Your task to perform on an android device: When is my next meeting? Image 0: 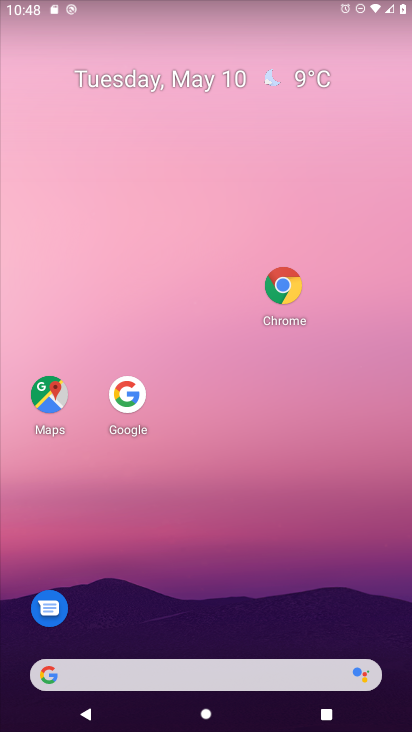
Step 0: drag from (198, 663) to (274, 172)
Your task to perform on an android device: When is my next meeting? Image 1: 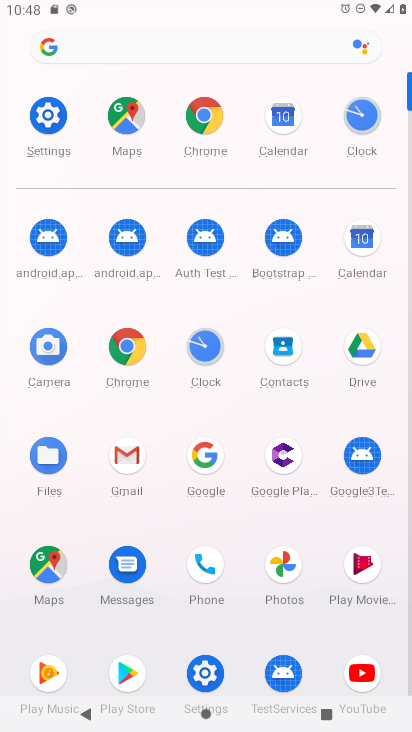
Step 1: click (283, 118)
Your task to perform on an android device: When is my next meeting? Image 2: 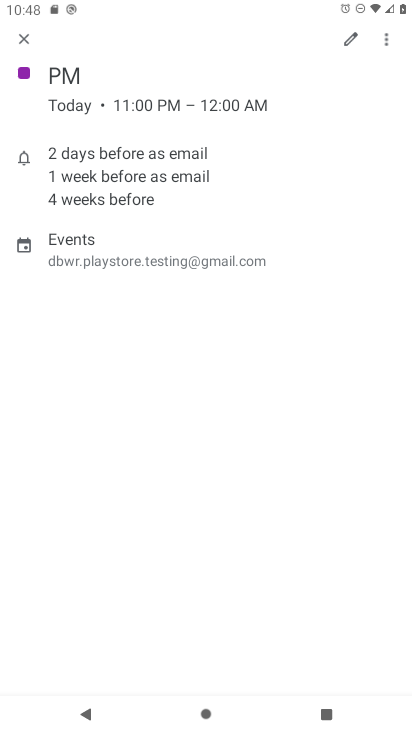
Step 2: click (22, 39)
Your task to perform on an android device: When is my next meeting? Image 3: 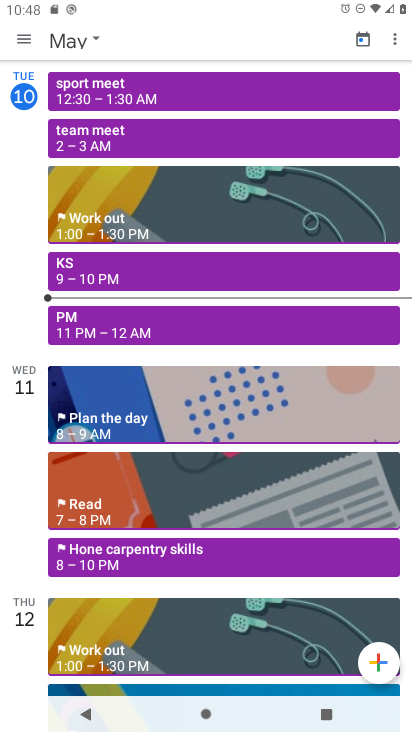
Step 3: click (122, 139)
Your task to perform on an android device: When is my next meeting? Image 4: 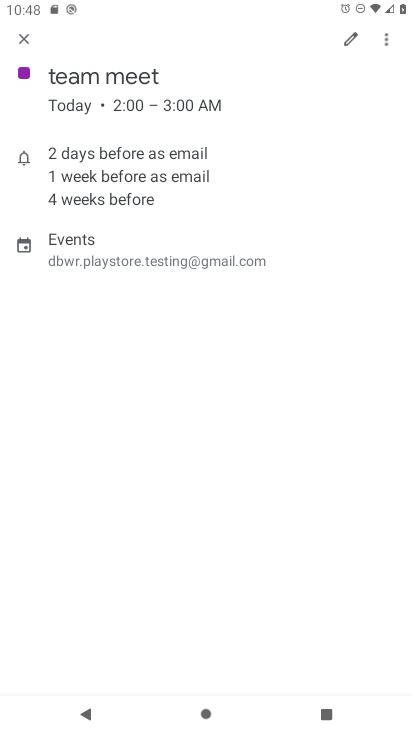
Step 4: task complete